Your task to perform on an android device: add a contact in the contacts app Image 0: 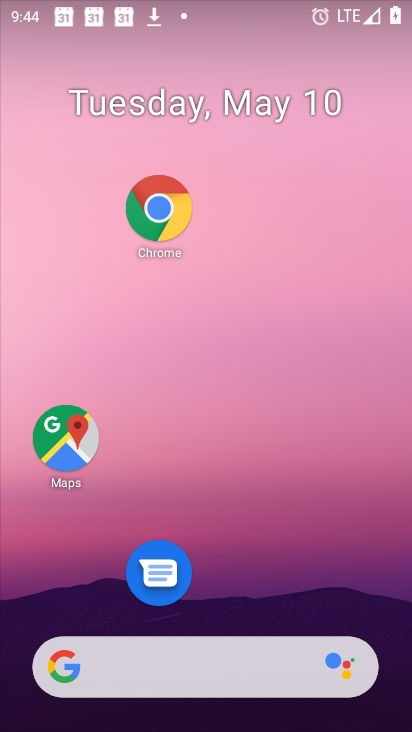
Step 0: drag from (252, 705) to (411, 147)
Your task to perform on an android device: add a contact in the contacts app Image 1: 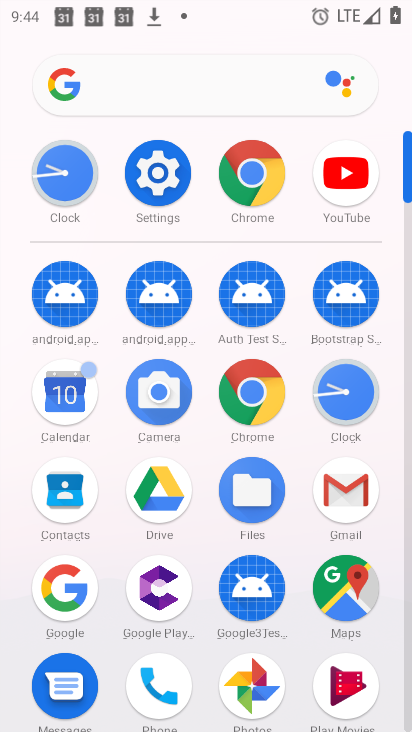
Step 1: click (143, 664)
Your task to perform on an android device: add a contact in the contacts app Image 2: 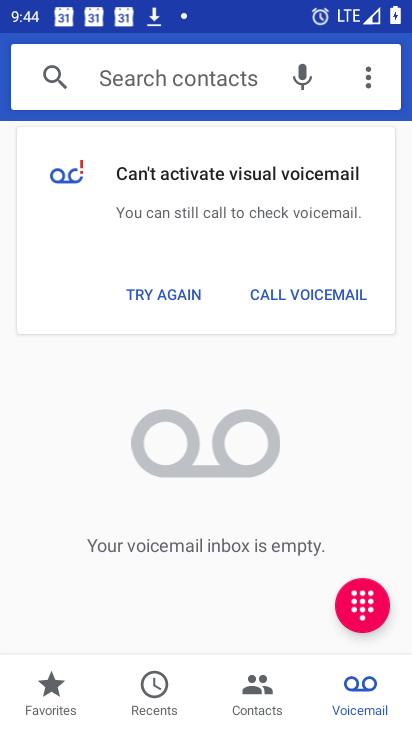
Step 2: click (257, 688)
Your task to perform on an android device: add a contact in the contacts app Image 3: 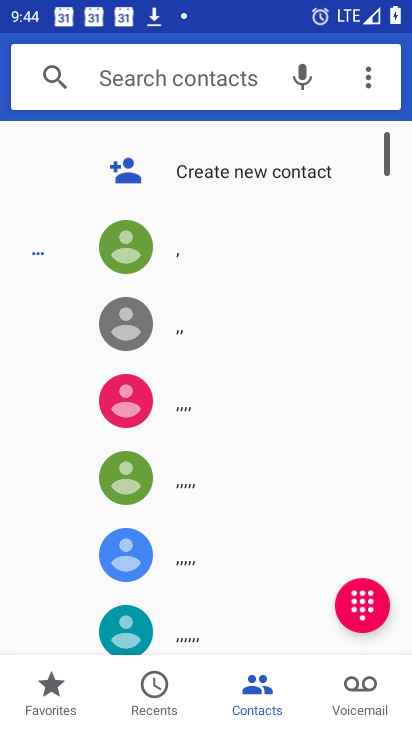
Step 3: click (265, 179)
Your task to perform on an android device: add a contact in the contacts app Image 4: 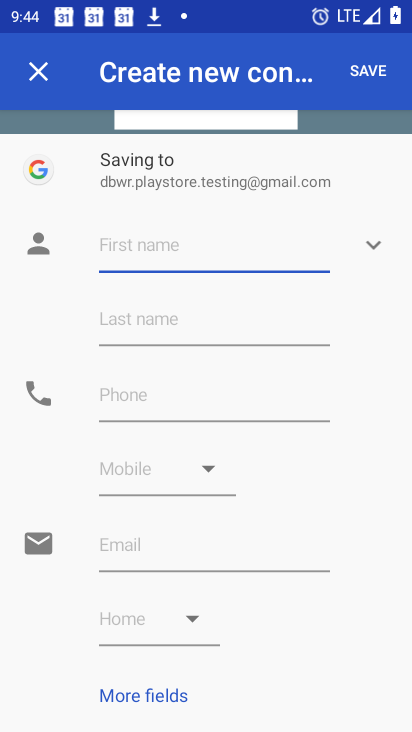
Step 4: click (143, 253)
Your task to perform on an android device: add a contact in the contacts app Image 5: 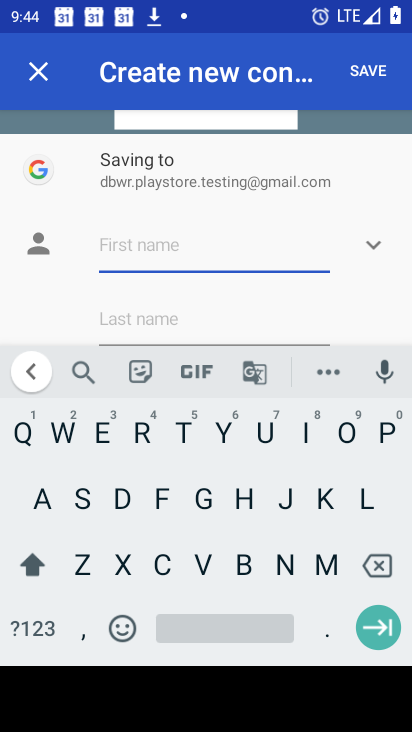
Step 5: click (42, 486)
Your task to perform on an android device: add a contact in the contacts app Image 6: 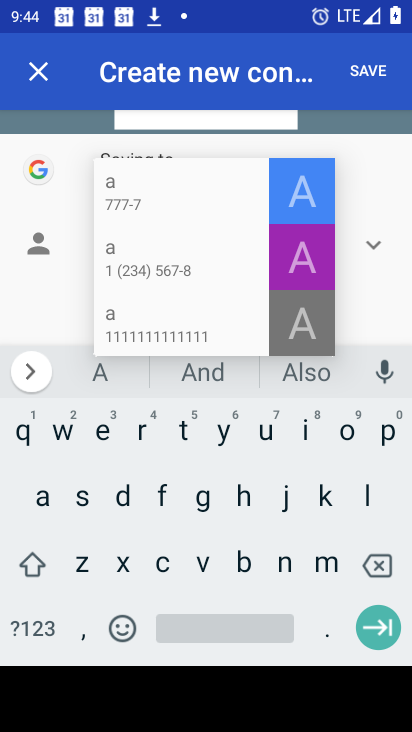
Step 6: click (235, 559)
Your task to perform on an android device: add a contact in the contacts app Image 7: 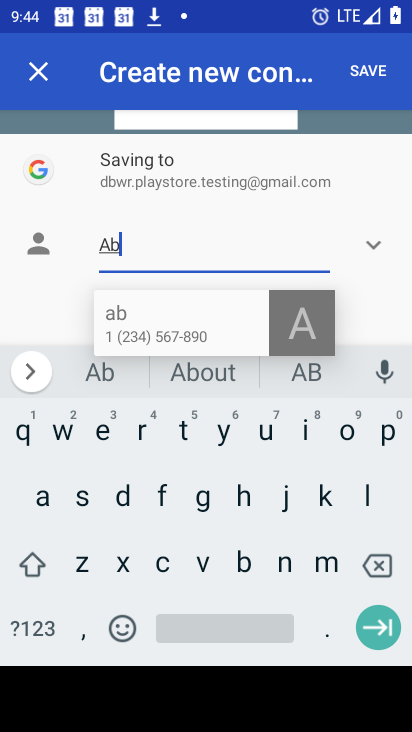
Step 7: click (184, 433)
Your task to perform on an android device: add a contact in the contacts app Image 8: 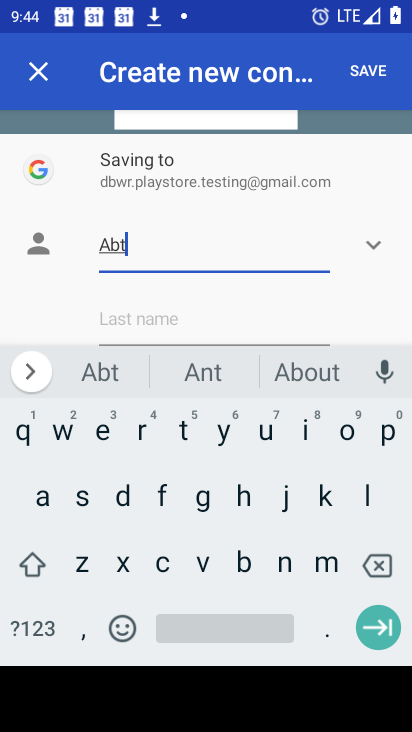
Step 8: drag from (203, 330) to (239, 181)
Your task to perform on an android device: add a contact in the contacts app Image 9: 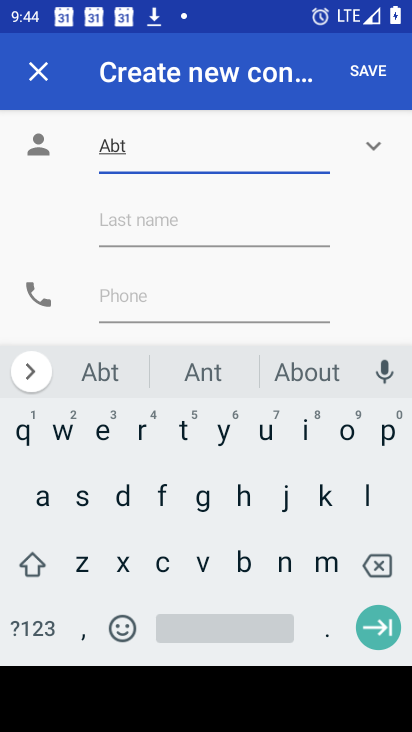
Step 9: click (136, 301)
Your task to perform on an android device: add a contact in the contacts app Image 10: 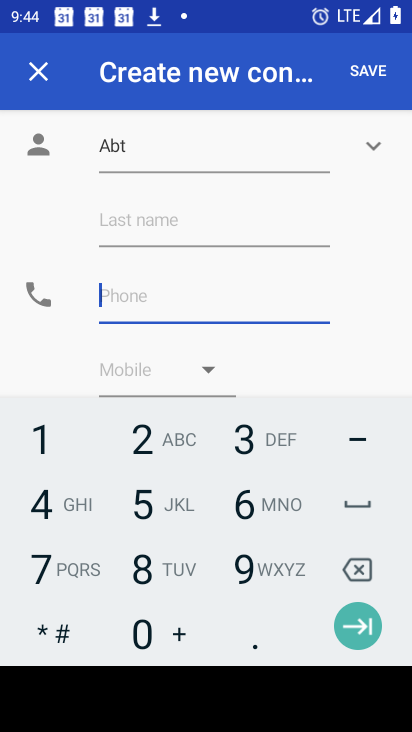
Step 10: click (244, 557)
Your task to perform on an android device: add a contact in the contacts app Image 11: 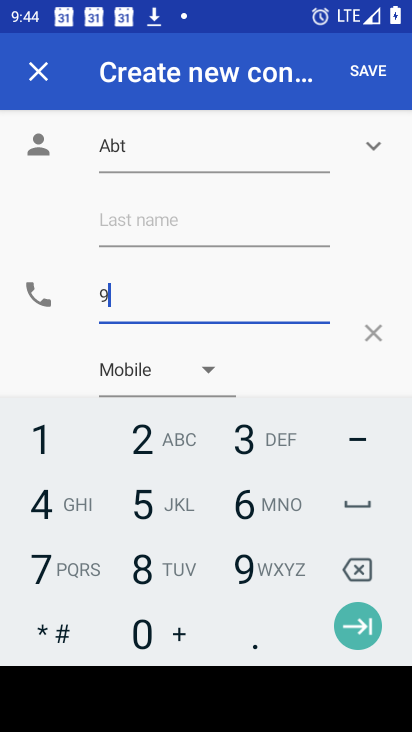
Step 11: click (169, 495)
Your task to perform on an android device: add a contact in the contacts app Image 12: 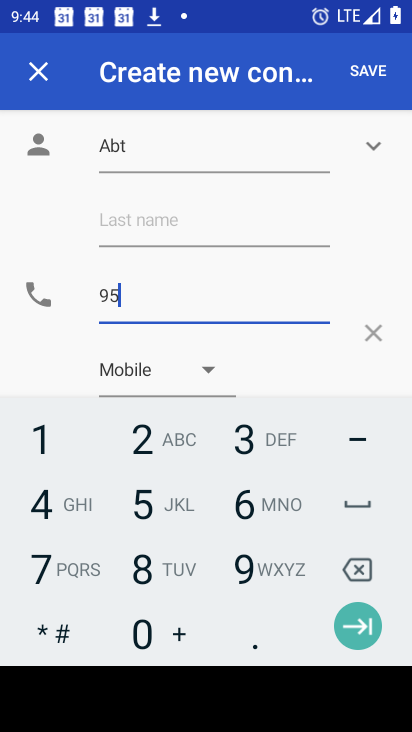
Step 12: click (245, 499)
Your task to perform on an android device: add a contact in the contacts app Image 13: 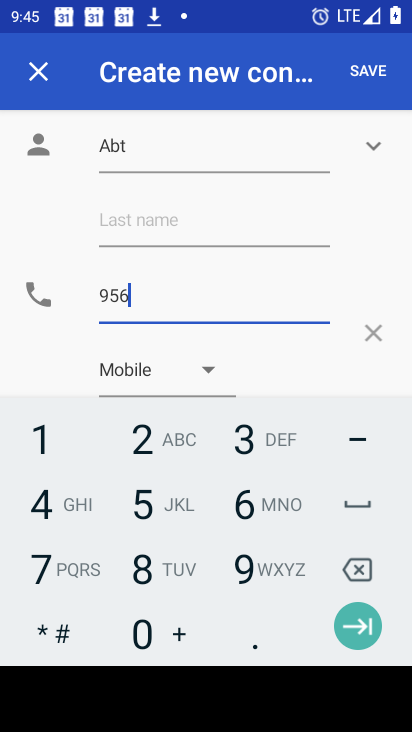
Step 13: click (155, 426)
Your task to perform on an android device: add a contact in the contacts app Image 14: 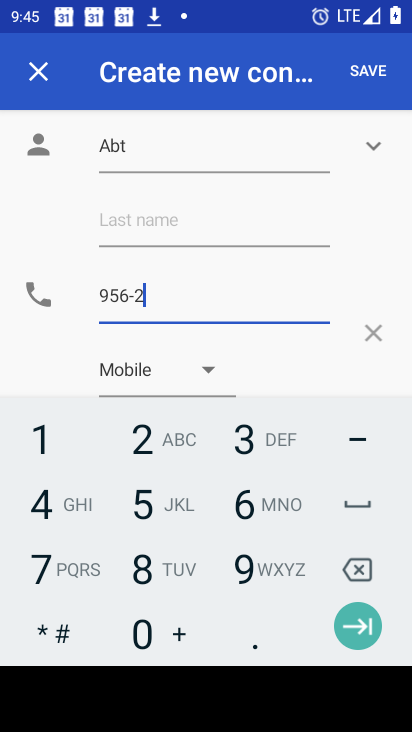
Step 14: click (139, 497)
Your task to perform on an android device: add a contact in the contacts app Image 15: 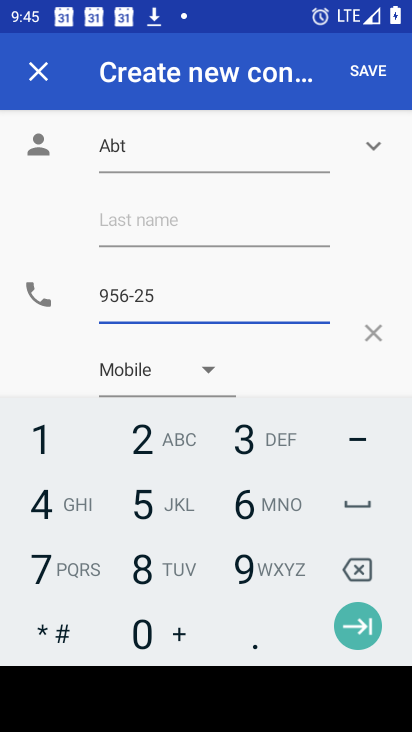
Step 15: click (79, 509)
Your task to perform on an android device: add a contact in the contacts app Image 16: 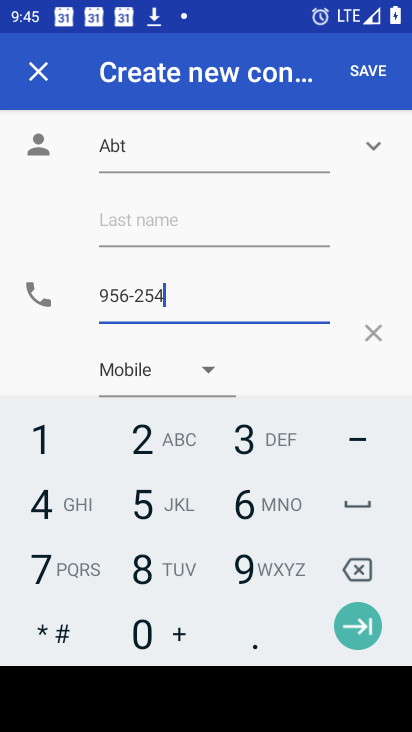
Step 16: click (151, 510)
Your task to perform on an android device: add a contact in the contacts app Image 17: 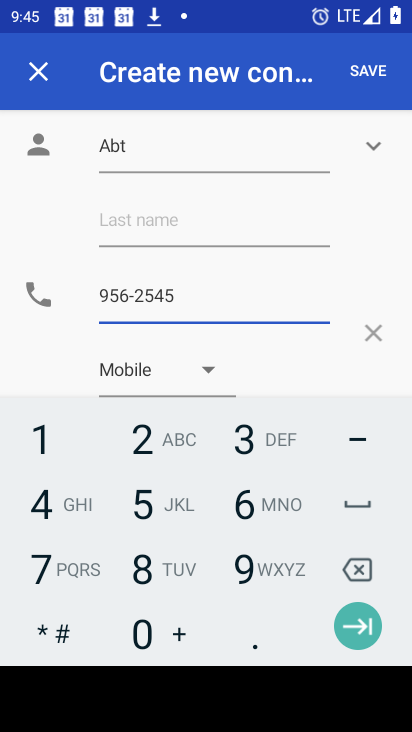
Step 17: click (148, 569)
Your task to perform on an android device: add a contact in the contacts app Image 18: 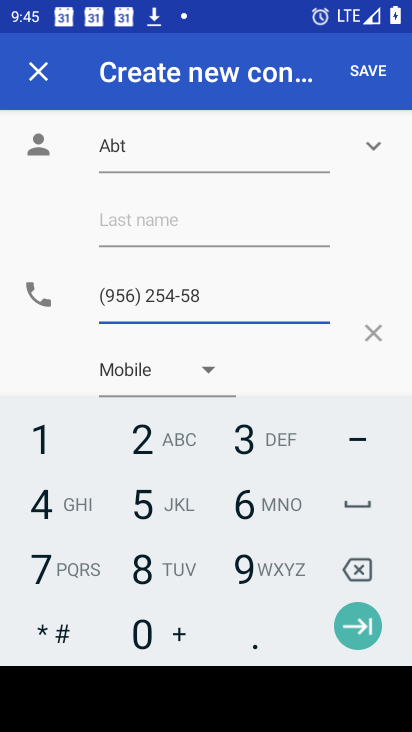
Step 18: click (153, 454)
Your task to perform on an android device: add a contact in the contacts app Image 19: 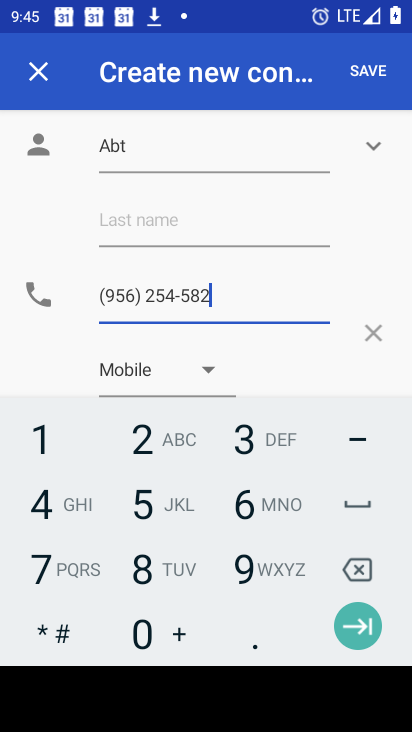
Step 19: click (239, 495)
Your task to perform on an android device: add a contact in the contacts app Image 20: 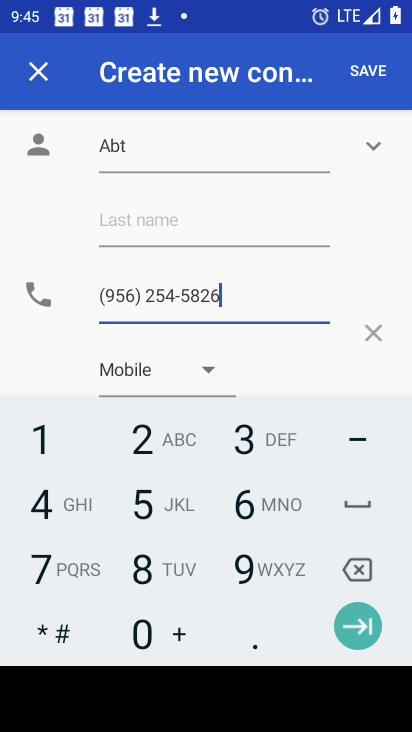
Step 20: click (362, 60)
Your task to perform on an android device: add a contact in the contacts app Image 21: 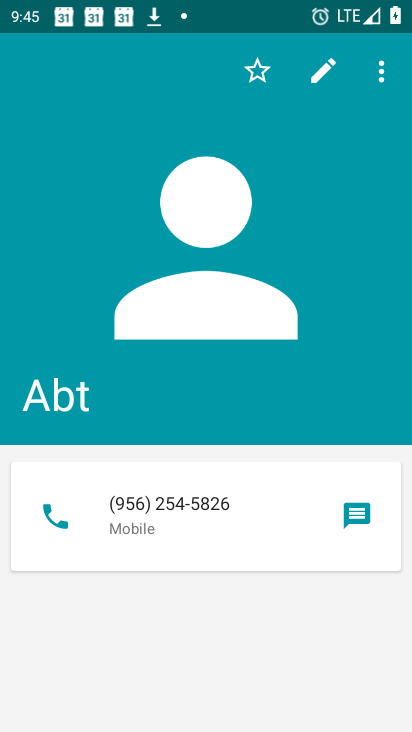
Step 21: task complete